Your task to perform on an android device: find photos in the google photos app Image 0: 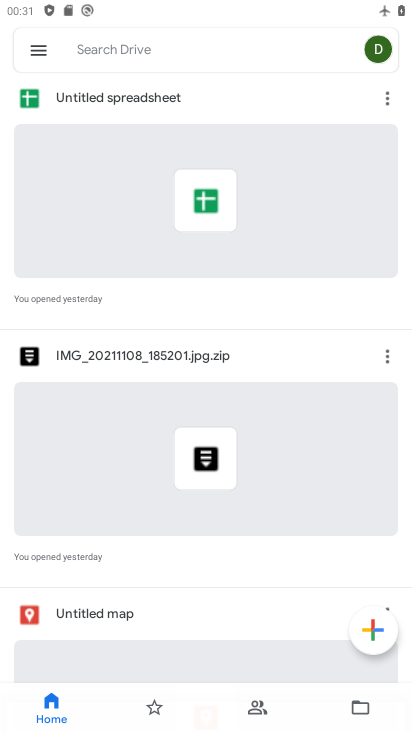
Step 0: press home button
Your task to perform on an android device: find photos in the google photos app Image 1: 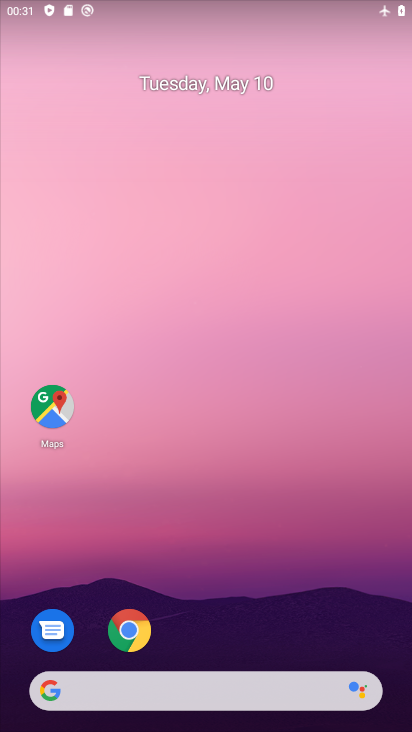
Step 1: drag from (228, 727) to (212, 124)
Your task to perform on an android device: find photos in the google photos app Image 2: 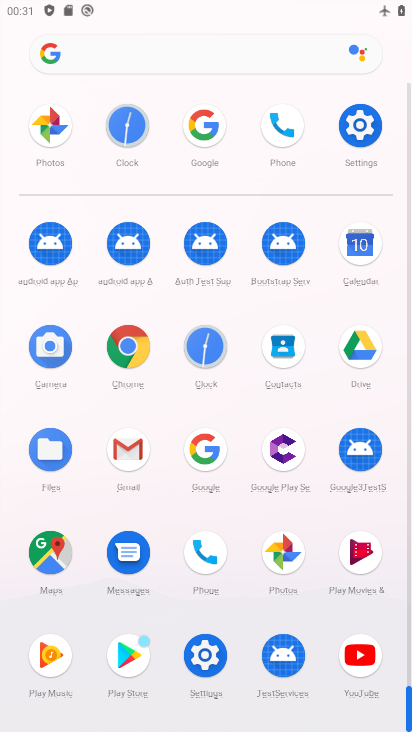
Step 2: click (284, 550)
Your task to perform on an android device: find photos in the google photos app Image 3: 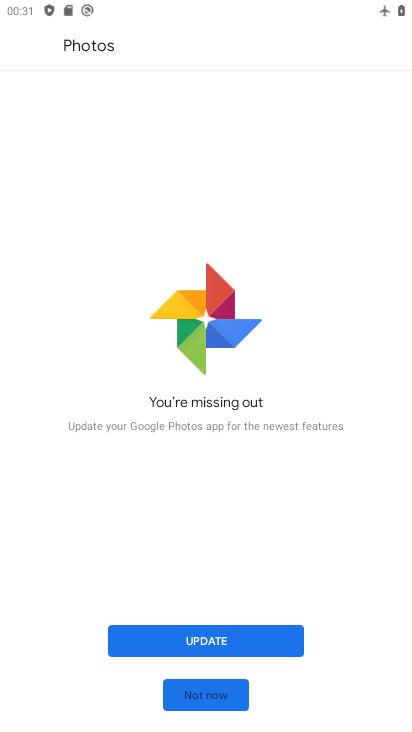
Step 3: click (220, 630)
Your task to perform on an android device: find photos in the google photos app Image 4: 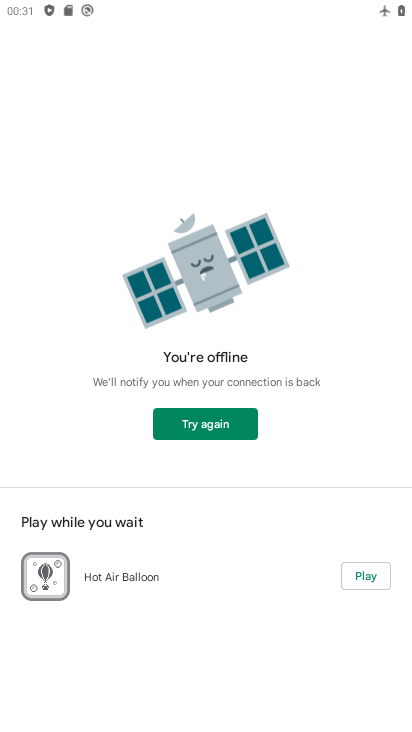
Step 4: task complete